Your task to perform on an android device: Play the last video I watched on Youtube Image 0: 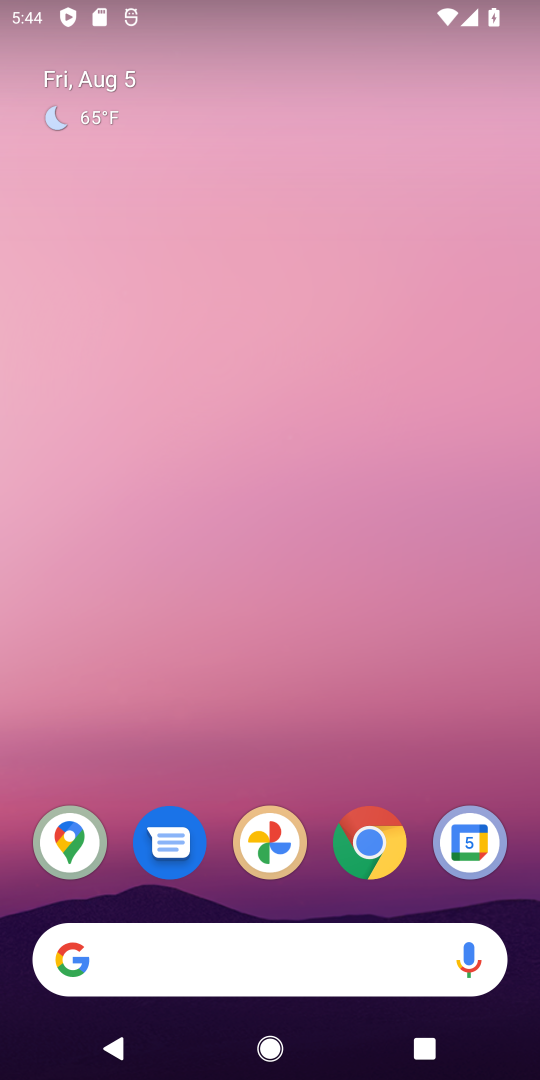
Step 0: drag from (47, 1020) to (366, 260)
Your task to perform on an android device: Play the last video I watched on Youtube Image 1: 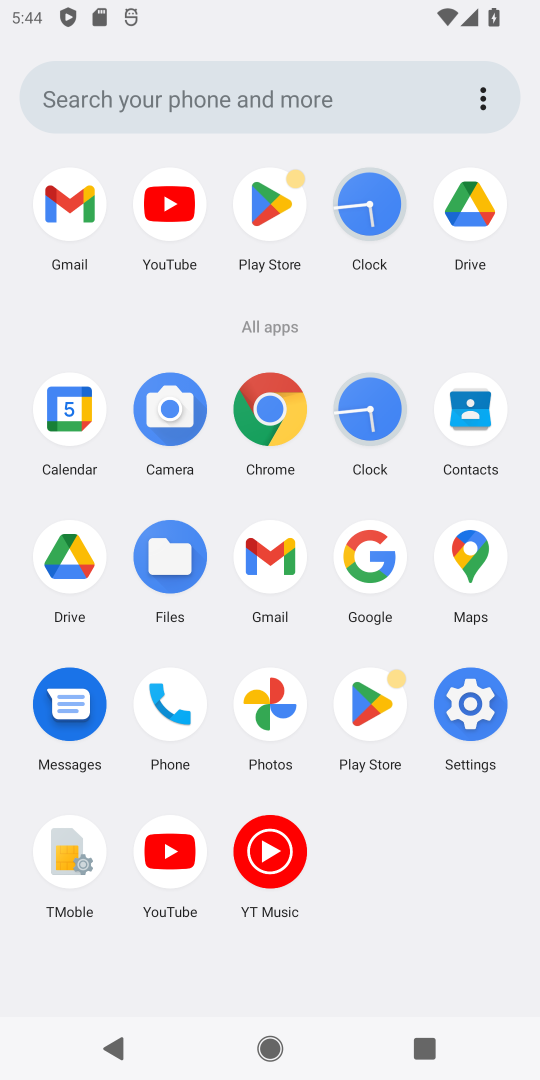
Step 1: click (179, 891)
Your task to perform on an android device: Play the last video I watched on Youtube Image 2: 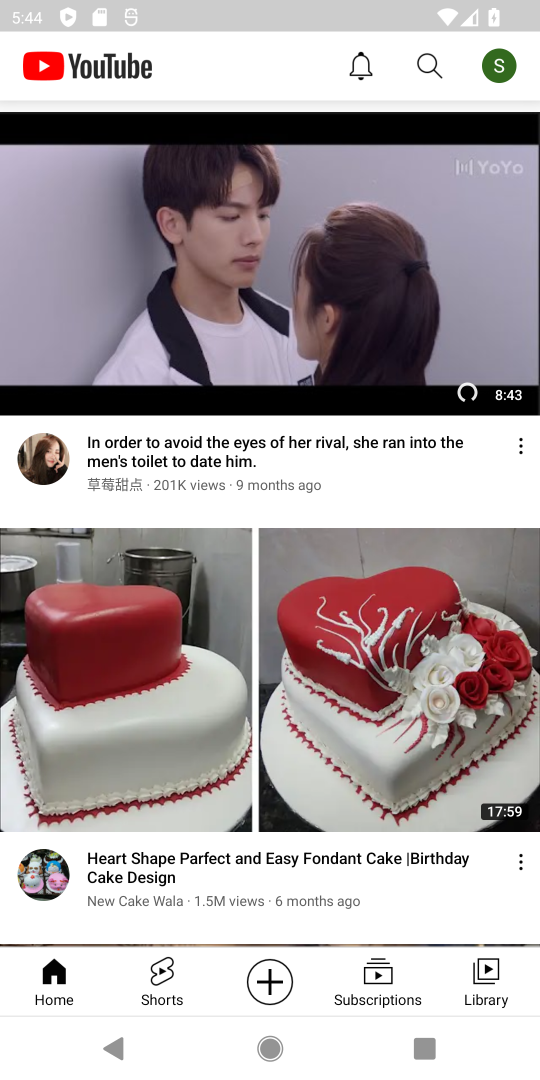
Step 2: task complete